Your task to perform on an android device: turn off airplane mode Image 0: 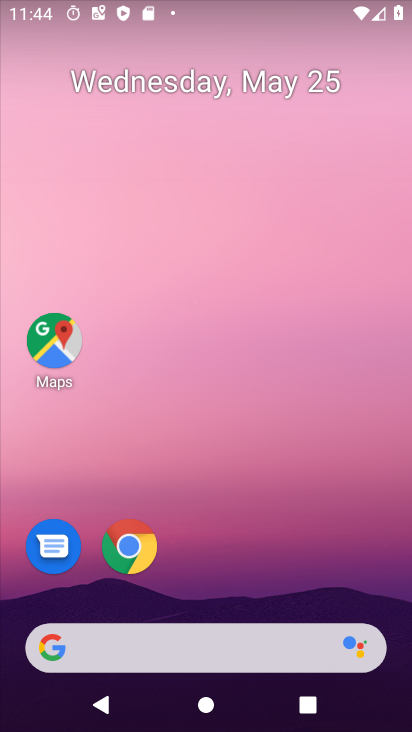
Step 0: drag from (241, 549) to (282, 5)
Your task to perform on an android device: turn off airplane mode Image 1: 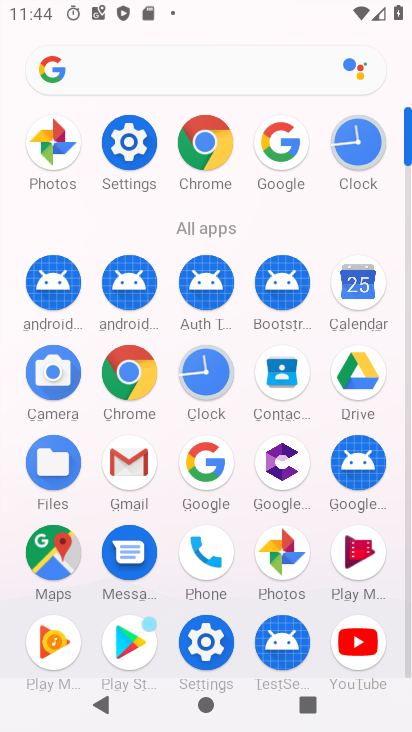
Step 1: click (127, 143)
Your task to perform on an android device: turn off airplane mode Image 2: 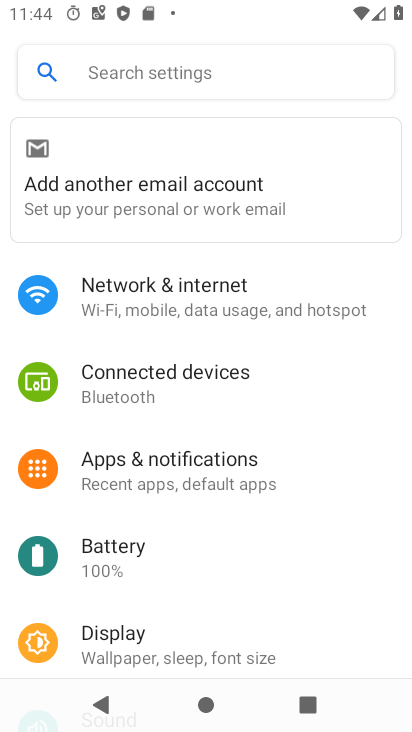
Step 2: click (149, 313)
Your task to perform on an android device: turn off airplane mode Image 3: 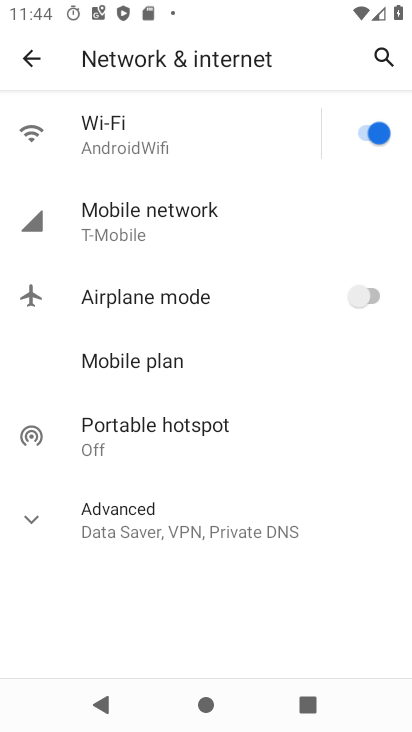
Step 3: task complete